Your task to perform on an android device: open device folders in google photos Image 0: 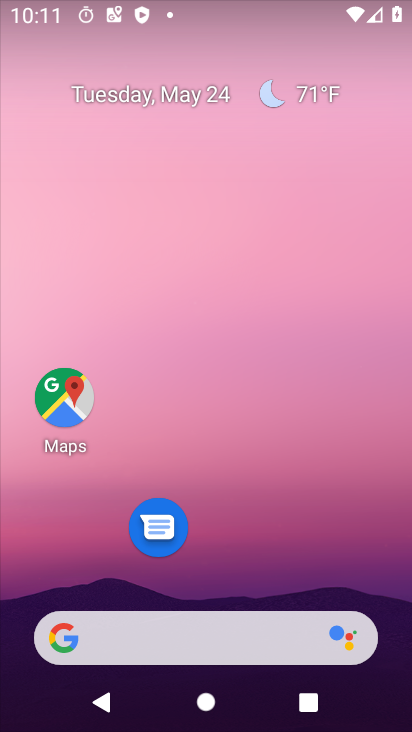
Step 0: drag from (237, 555) to (283, 37)
Your task to perform on an android device: open device folders in google photos Image 1: 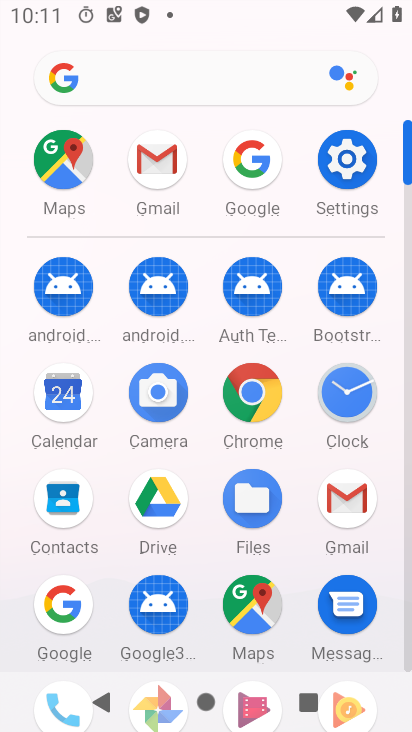
Step 1: drag from (114, 519) to (117, 251)
Your task to perform on an android device: open device folders in google photos Image 2: 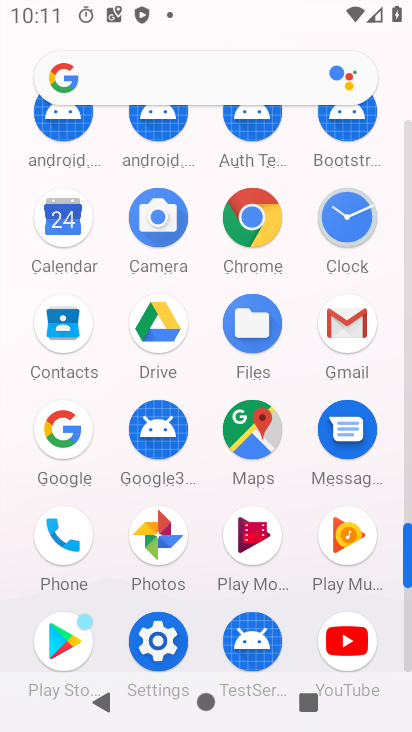
Step 2: click (164, 538)
Your task to perform on an android device: open device folders in google photos Image 3: 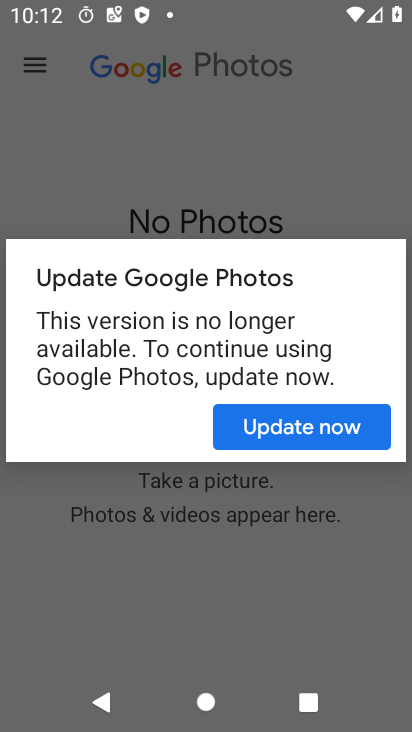
Step 3: click (303, 426)
Your task to perform on an android device: open device folders in google photos Image 4: 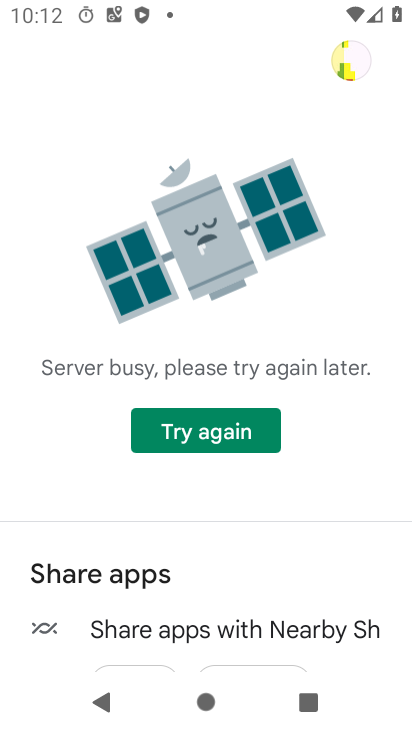
Step 4: task complete